Your task to perform on an android device: add a label to a message in the gmail app Image 0: 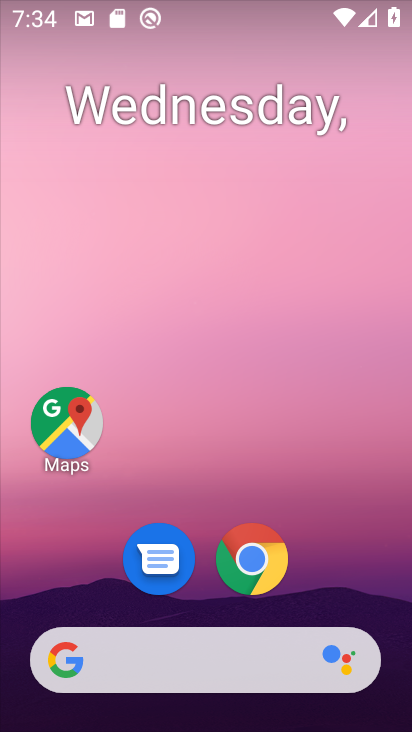
Step 0: drag from (383, 594) to (391, 129)
Your task to perform on an android device: add a label to a message in the gmail app Image 1: 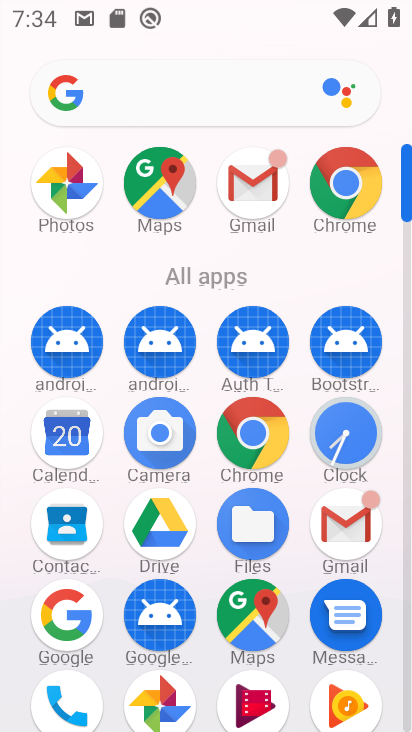
Step 1: click (336, 528)
Your task to perform on an android device: add a label to a message in the gmail app Image 2: 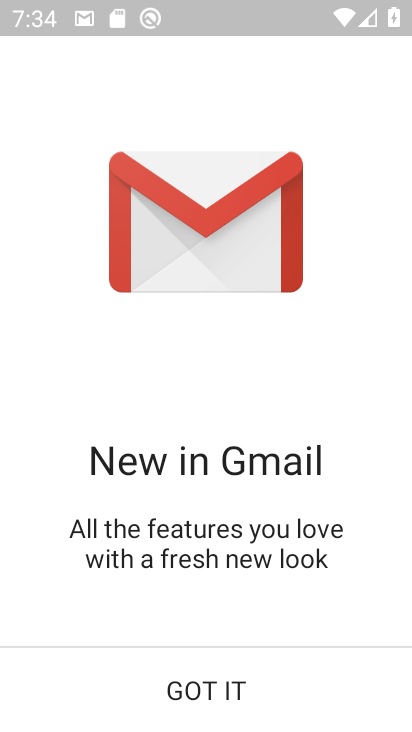
Step 2: click (199, 686)
Your task to perform on an android device: add a label to a message in the gmail app Image 3: 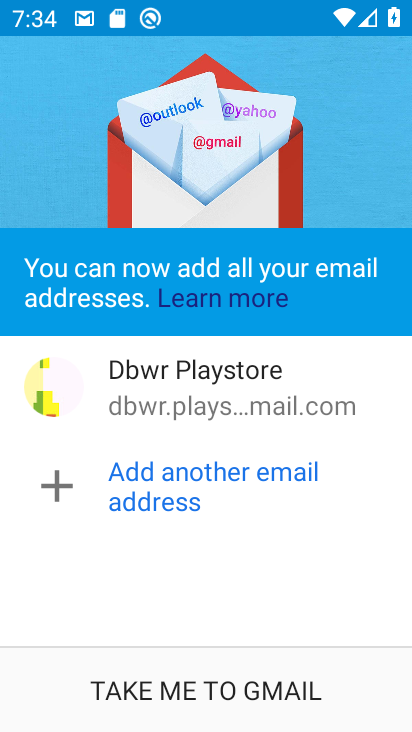
Step 3: click (241, 688)
Your task to perform on an android device: add a label to a message in the gmail app Image 4: 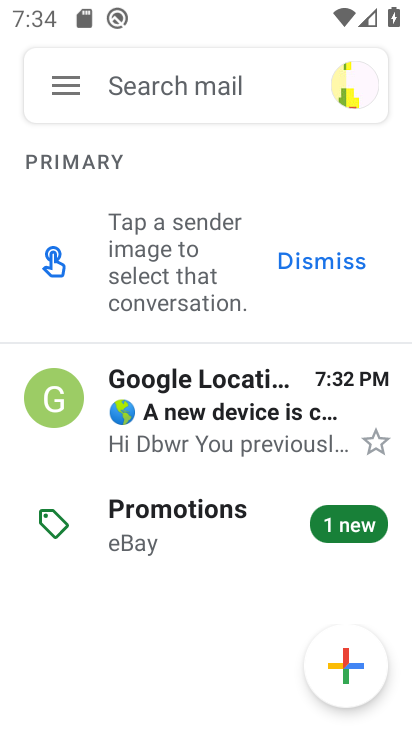
Step 4: click (227, 408)
Your task to perform on an android device: add a label to a message in the gmail app Image 5: 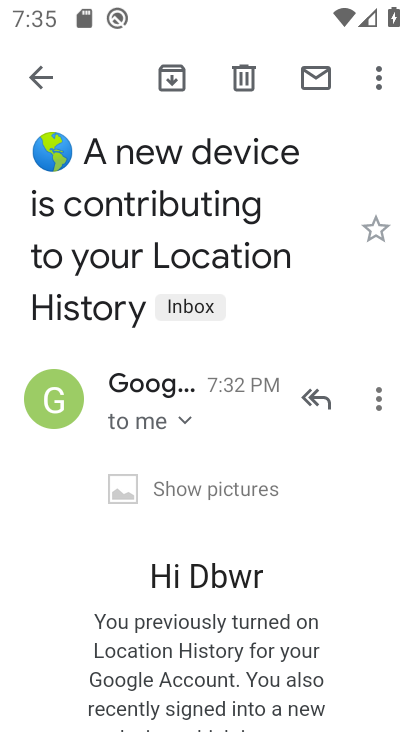
Step 5: click (377, 81)
Your task to perform on an android device: add a label to a message in the gmail app Image 6: 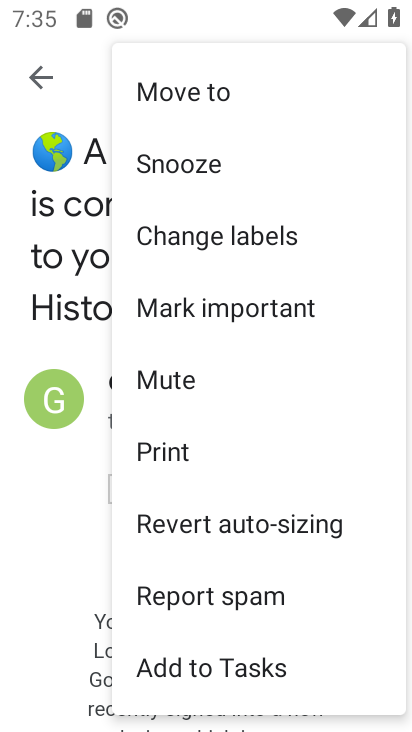
Step 6: drag from (323, 594) to (322, 358)
Your task to perform on an android device: add a label to a message in the gmail app Image 7: 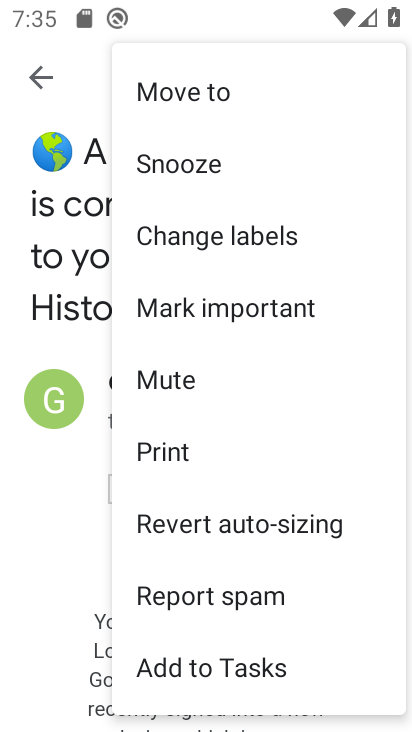
Step 7: click (215, 154)
Your task to perform on an android device: add a label to a message in the gmail app Image 8: 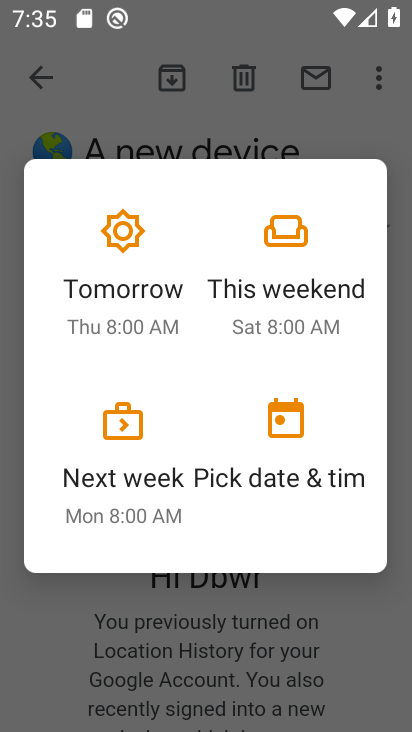
Step 8: click (152, 280)
Your task to perform on an android device: add a label to a message in the gmail app Image 9: 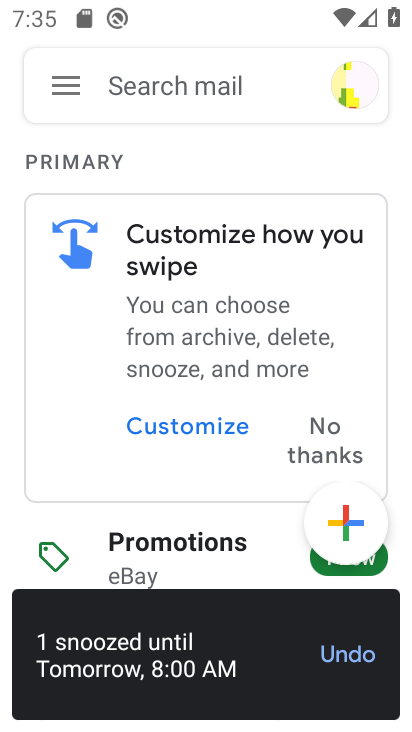
Step 9: task complete